Your task to perform on an android device: Go to Google Image 0: 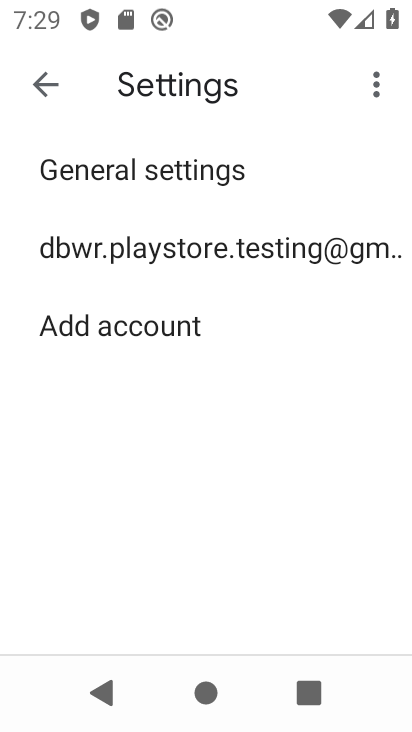
Step 0: press home button
Your task to perform on an android device: Go to Google Image 1: 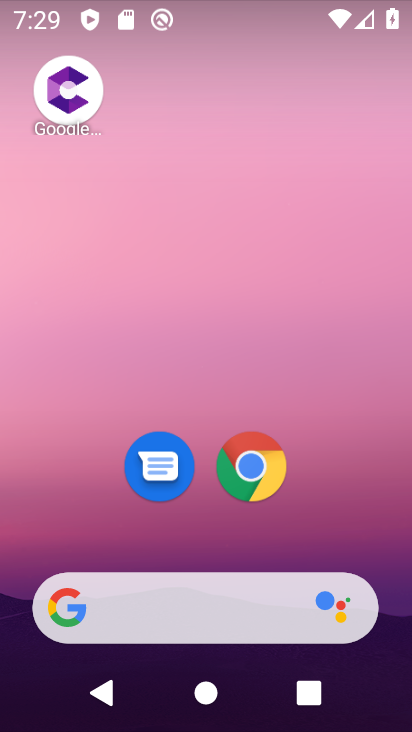
Step 1: drag from (305, 557) to (289, 197)
Your task to perform on an android device: Go to Google Image 2: 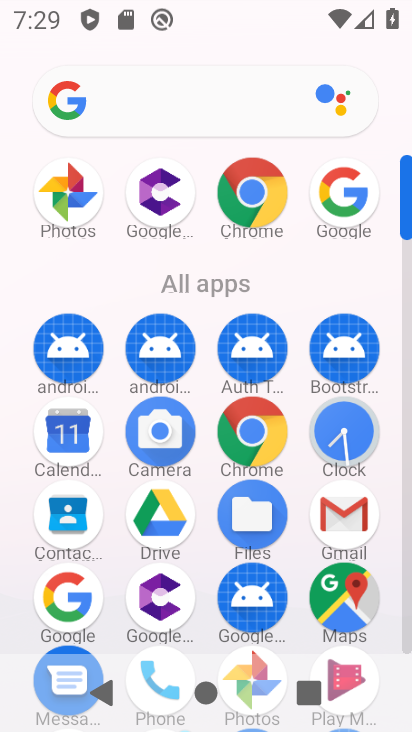
Step 2: click (71, 592)
Your task to perform on an android device: Go to Google Image 3: 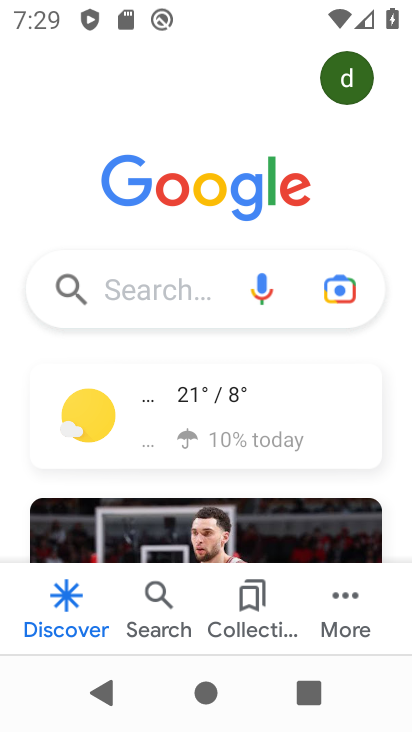
Step 3: task complete